Your task to perform on an android device: Go to CNN.com Image 0: 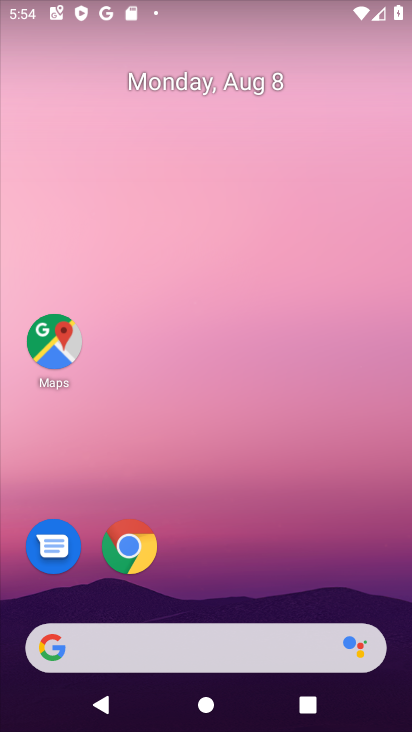
Step 0: click (144, 532)
Your task to perform on an android device: Go to CNN.com Image 1: 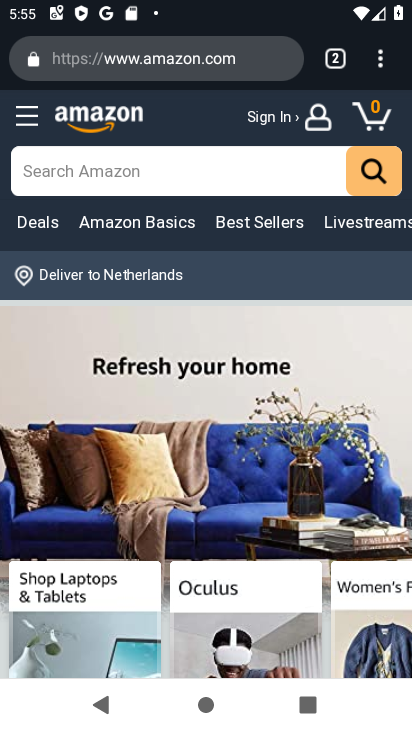
Step 1: click (340, 61)
Your task to perform on an android device: Go to CNN.com Image 2: 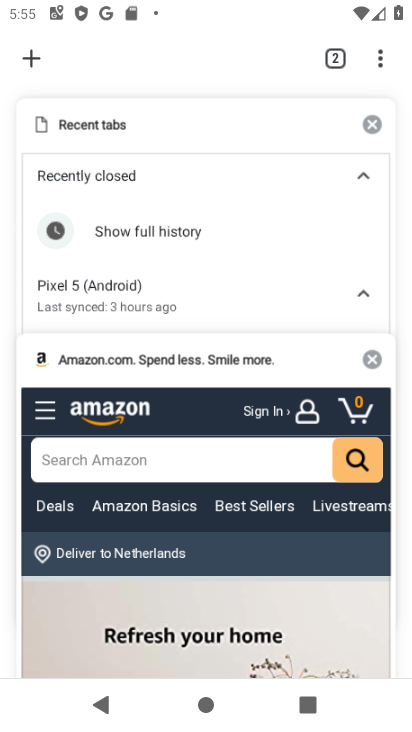
Step 2: click (26, 51)
Your task to perform on an android device: Go to CNN.com Image 3: 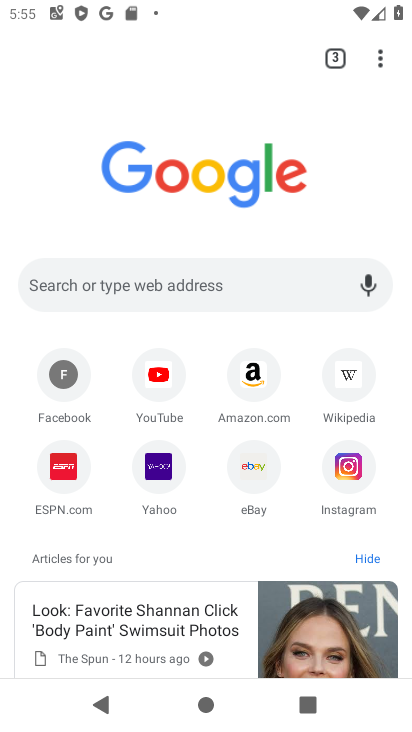
Step 3: click (198, 289)
Your task to perform on an android device: Go to CNN.com Image 4: 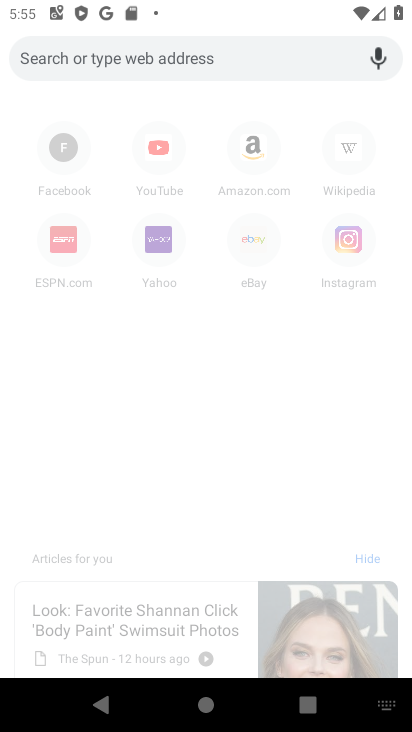
Step 4: type "CNN.com"
Your task to perform on an android device: Go to CNN.com Image 5: 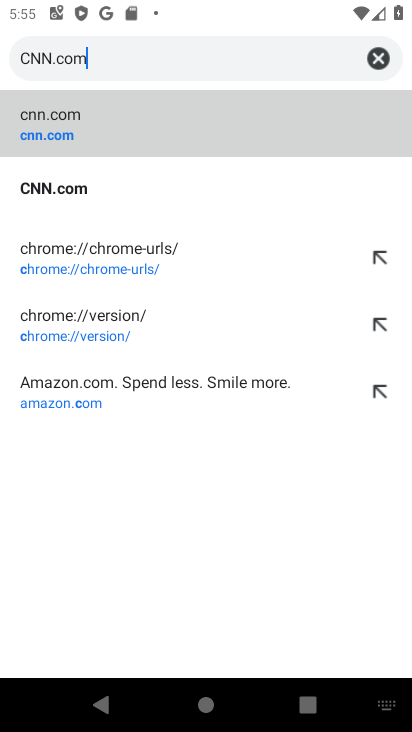
Step 5: type ""
Your task to perform on an android device: Go to CNN.com Image 6: 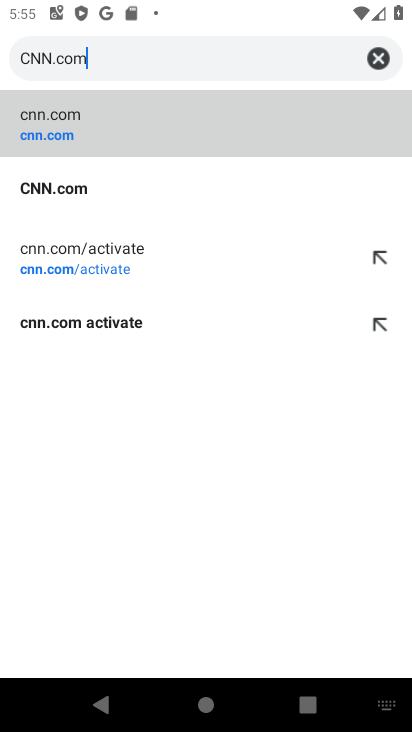
Step 6: click (207, 134)
Your task to perform on an android device: Go to CNN.com Image 7: 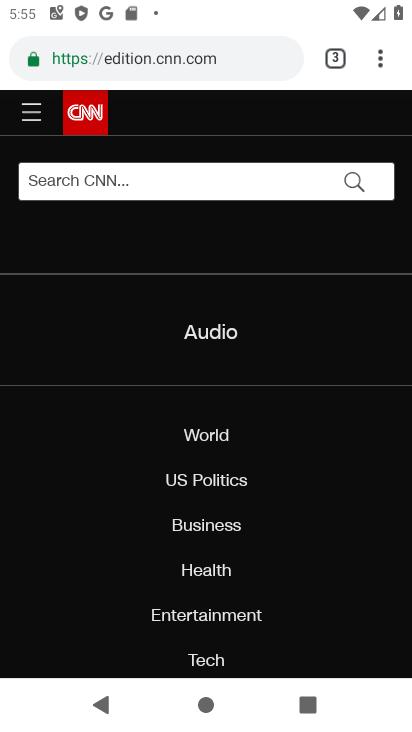
Step 7: task complete